Your task to perform on an android device: Show me recent news Image 0: 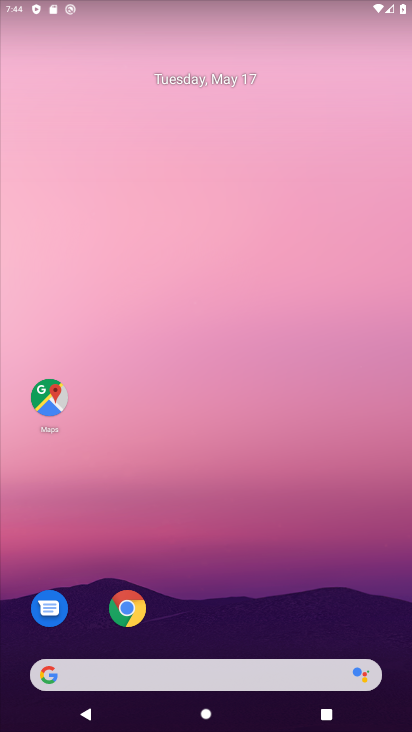
Step 0: drag from (301, 587) to (288, 101)
Your task to perform on an android device: Show me recent news Image 1: 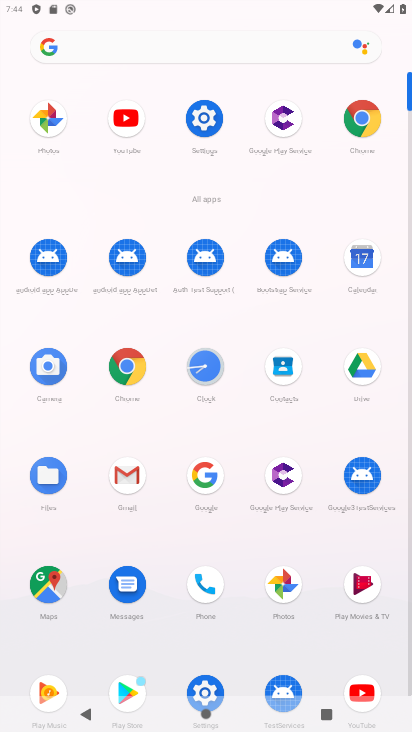
Step 1: click (141, 359)
Your task to perform on an android device: Show me recent news Image 2: 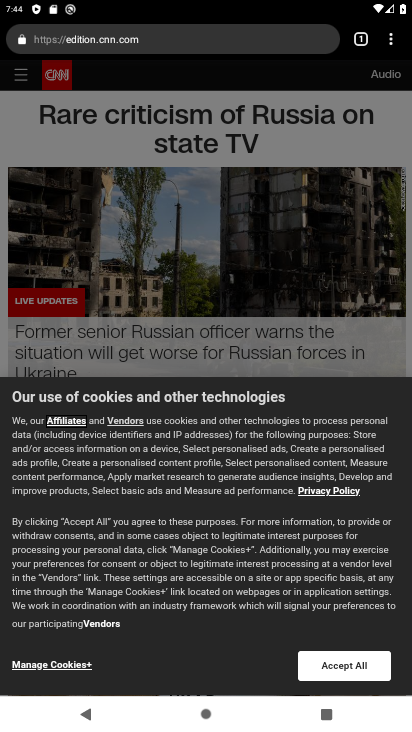
Step 2: click (166, 45)
Your task to perform on an android device: Show me recent news Image 3: 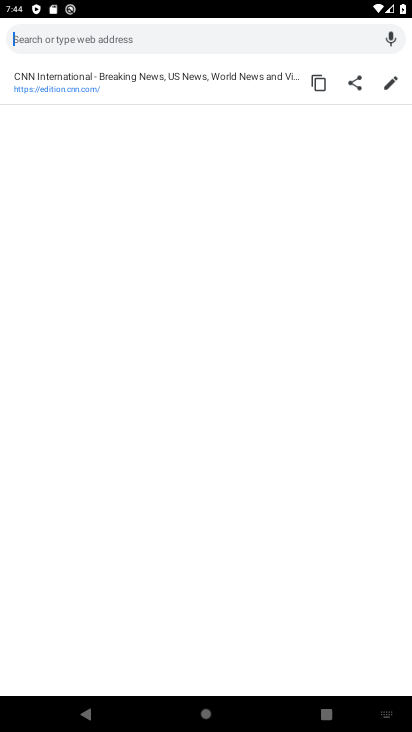
Step 3: type "recent news"
Your task to perform on an android device: Show me recent news Image 4: 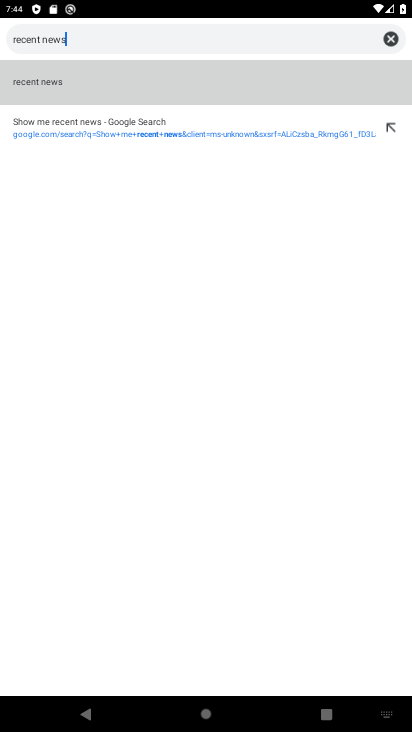
Step 4: click (137, 82)
Your task to perform on an android device: Show me recent news Image 5: 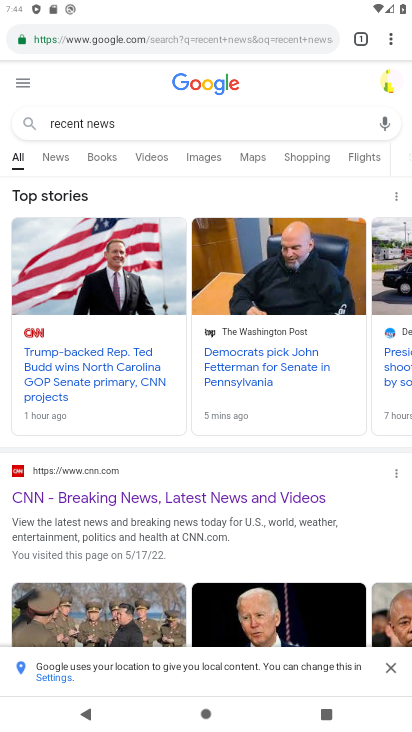
Step 5: task complete